Your task to perform on an android device: turn off smart reply in the gmail app Image 0: 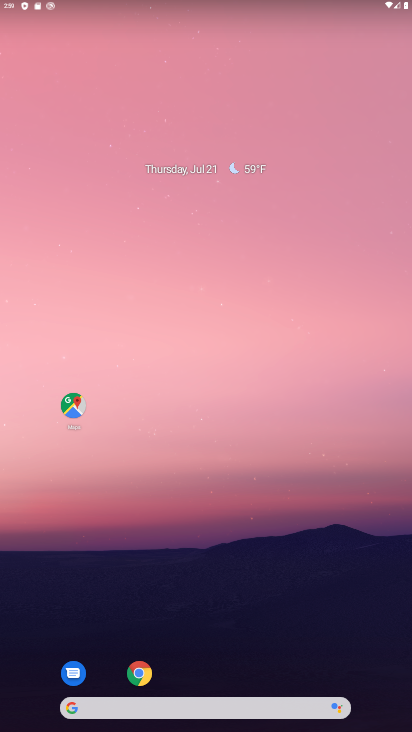
Step 0: drag from (351, 660) to (322, 249)
Your task to perform on an android device: turn off smart reply in the gmail app Image 1: 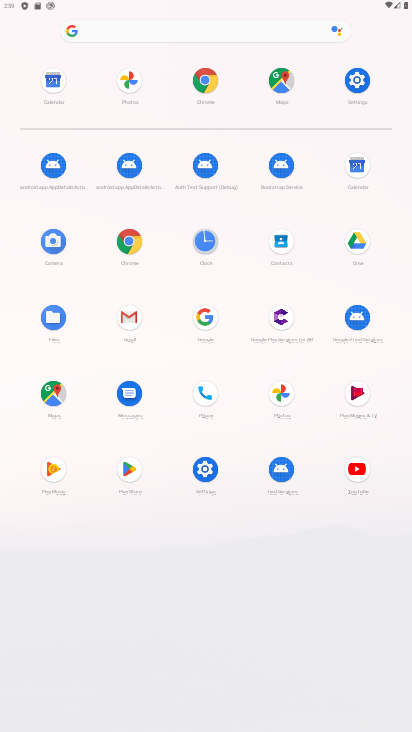
Step 1: click (128, 320)
Your task to perform on an android device: turn off smart reply in the gmail app Image 2: 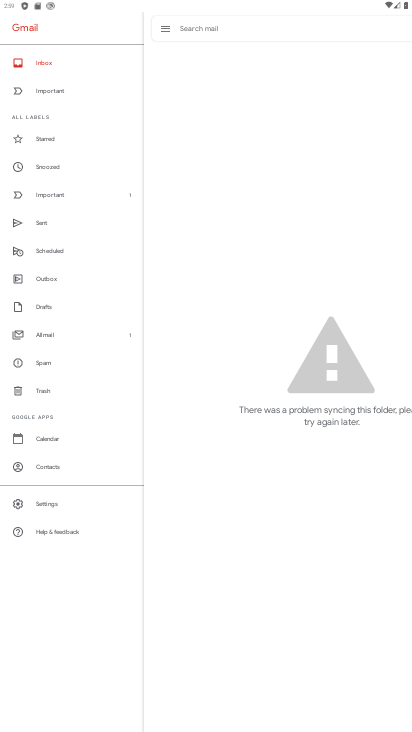
Step 2: click (53, 505)
Your task to perform on an android device: turn off smart reply in the gmail app Image 3: 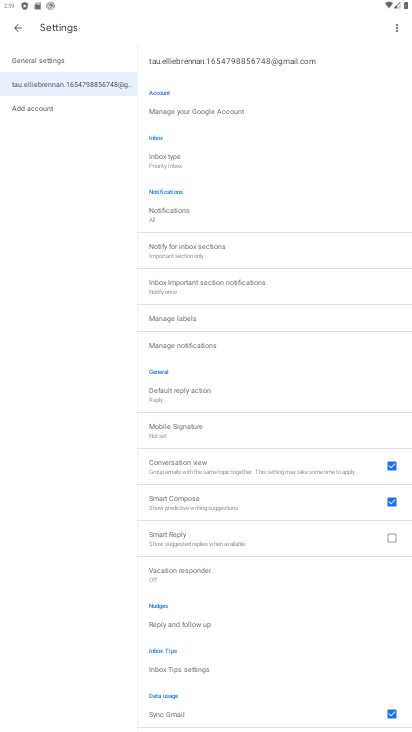
Step 3: task complete